Your task to perform on an android device: see tabs open on other devices in the chrome app Image 0: 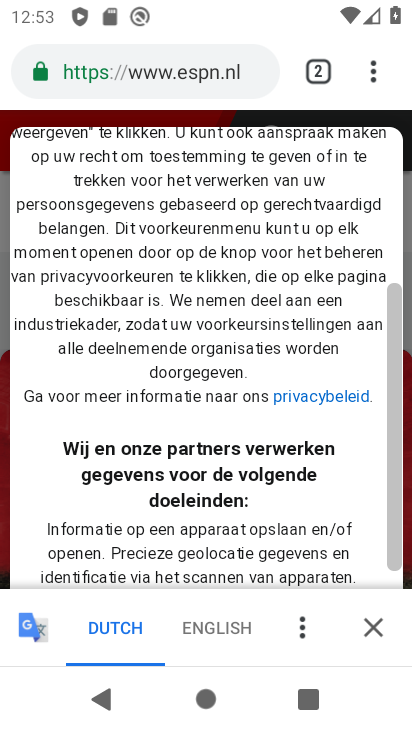
Step 0: press home button
Your task to perform on an android device: see tabs open on other devices in the chrome app Image 1: 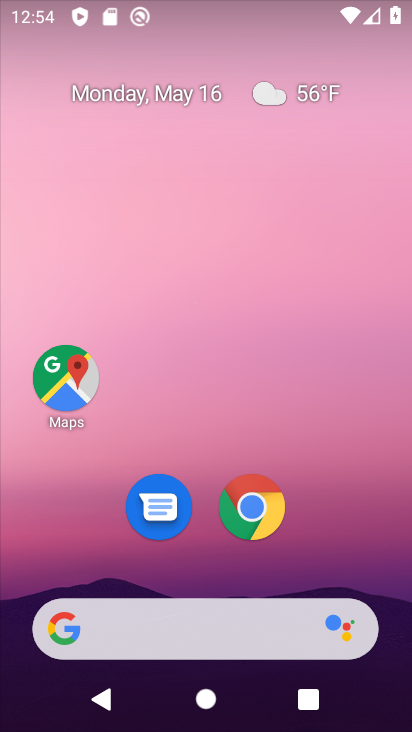
Step 1: click (240, 502)
Your task to perform on an android device: see tabs open on other devices in the chrome app Image 2: 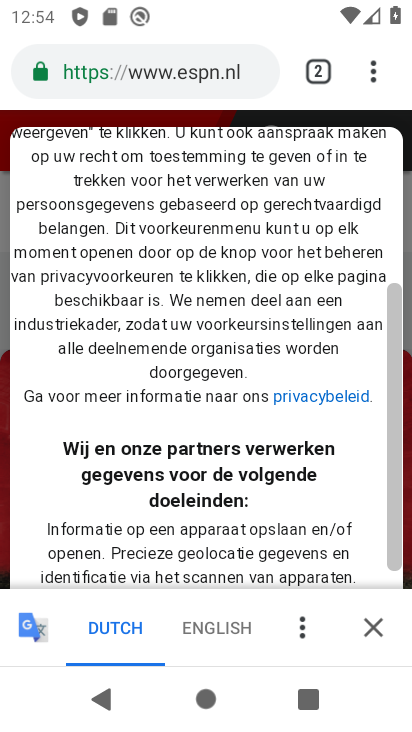
Step 2: task complete